Your task to perform on an android device: Open Amazon Image 0: 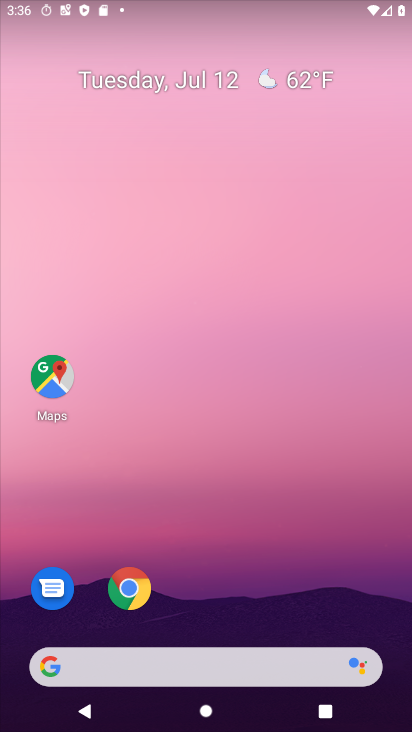
Step 0: click (123, 612)
Your task to perform on an android device: Open Amazon Image 1: 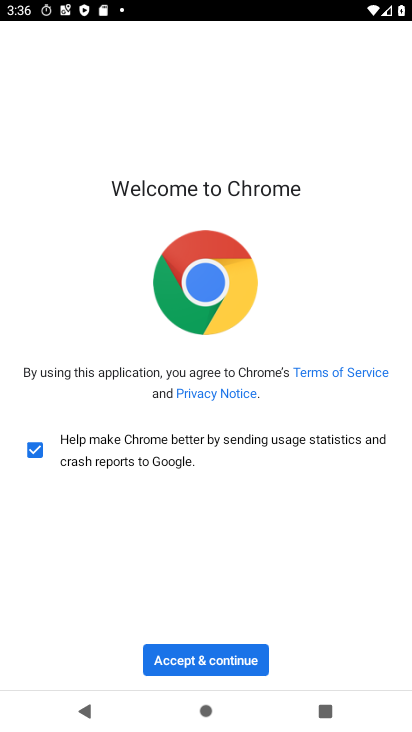
Step 1: click (238, 662)
Your task to perform on an android device: Open Amazon Image 2: 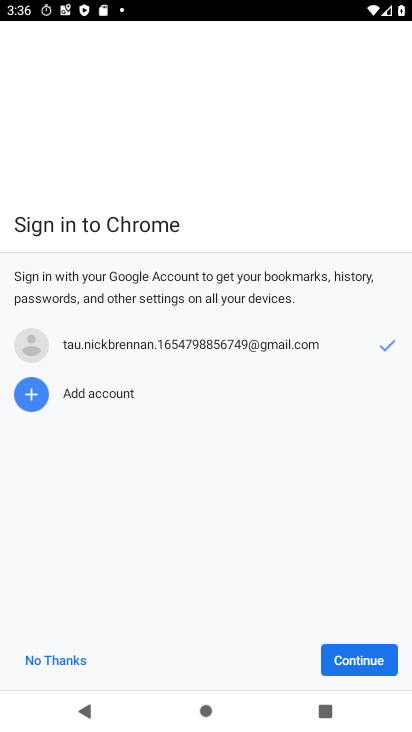
Step 2: click (348, 667)
Your task to perform on an android device: Open Amazon Image 3: 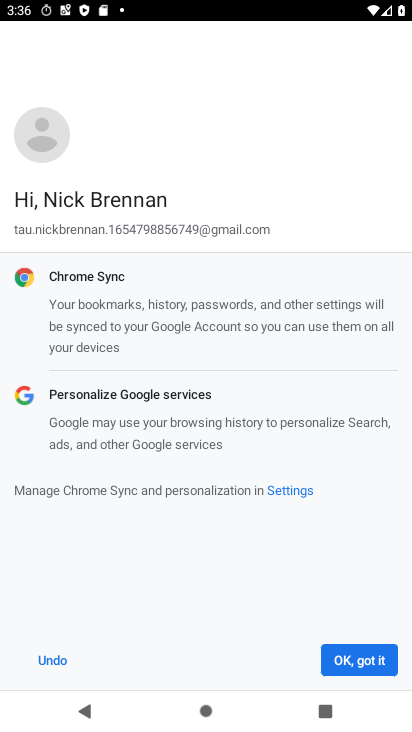
Step 3: click (347, 668)
Your task to perform on an android device: Open Amazon Image 4: 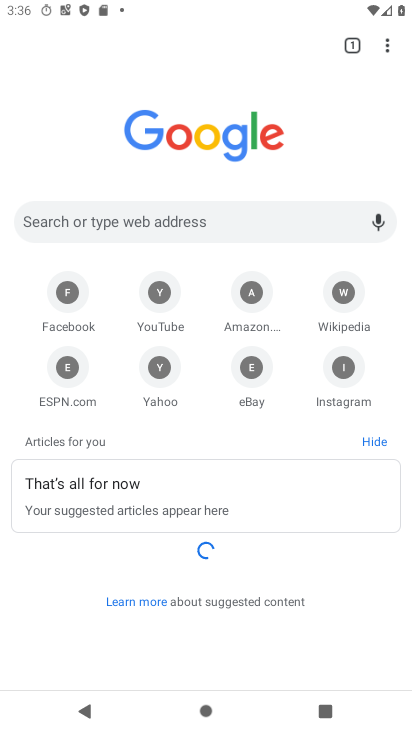
Step 4: click (248, 303)
Your task to perform on an android device: Open Amazon Image 5: 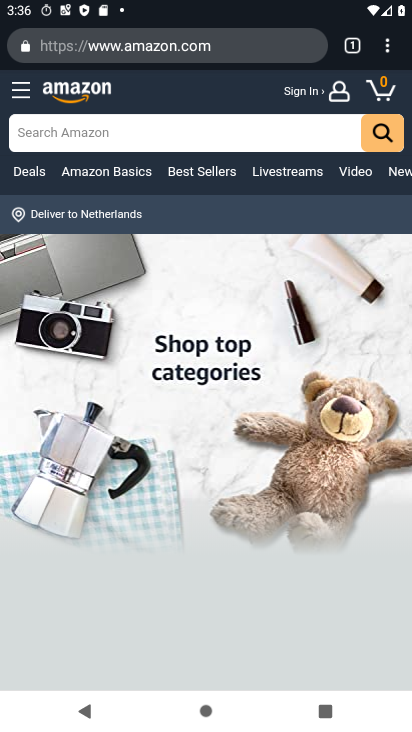
Step 5: task complete